Your task to perform on an android device: check the backup settings in the google photos Image 0: 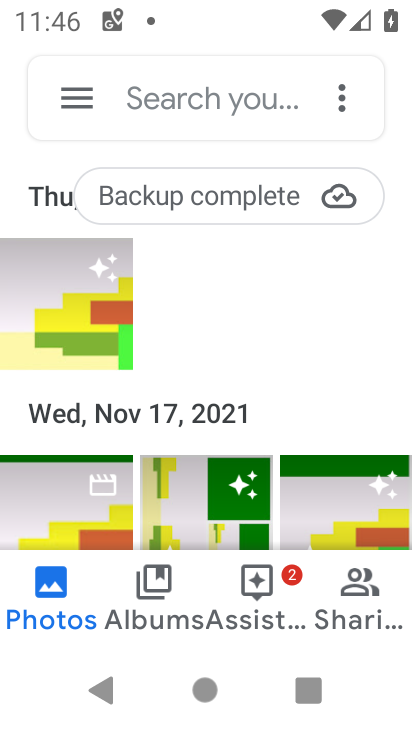
Step 0: click (297, 195)
Your task to perform on an android device: check the backup settings in the google photos Image 1: 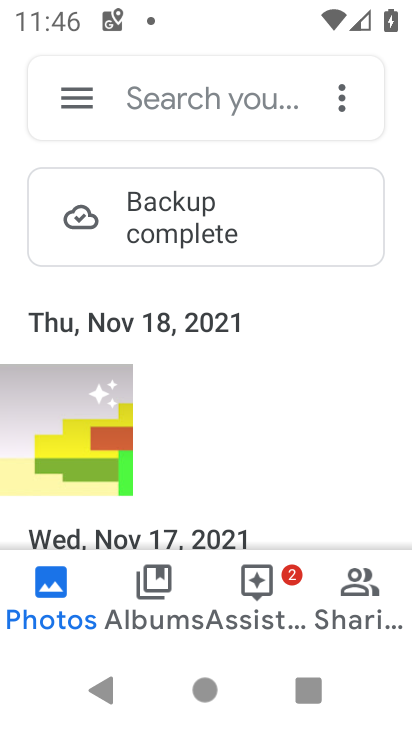
Step 1: click (205, 221)
Your task to perform on an android device: check the backup settings in the google photos Image 2: 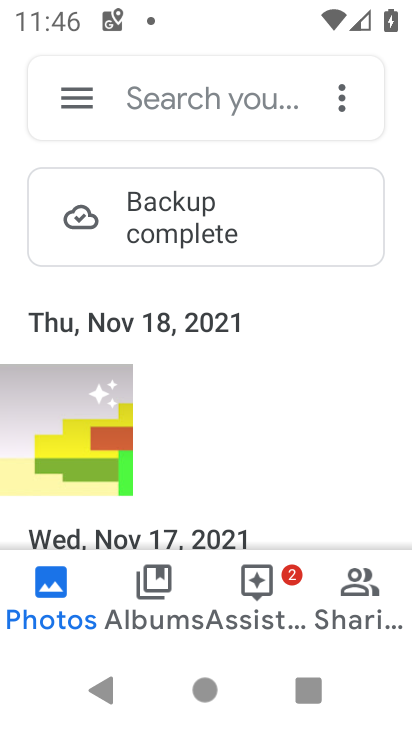
Step 2: click (205, 221)
Your task to perform on an android device: check the backup settings in the google photos Image 3: 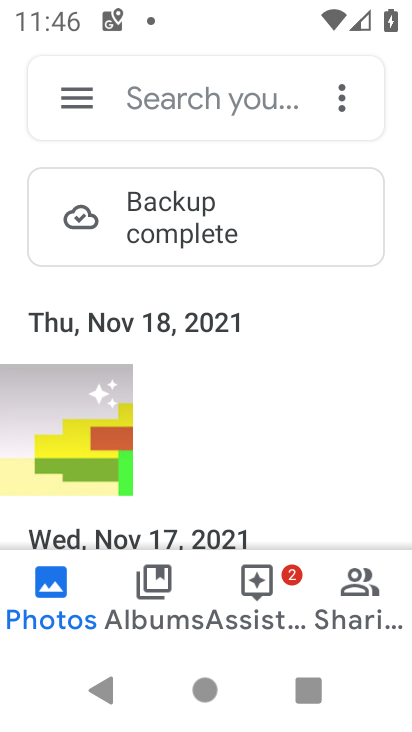
Step 3: click (205, 221)
Your task to perform on an android device: check the backup settings in the google photos Image 4: 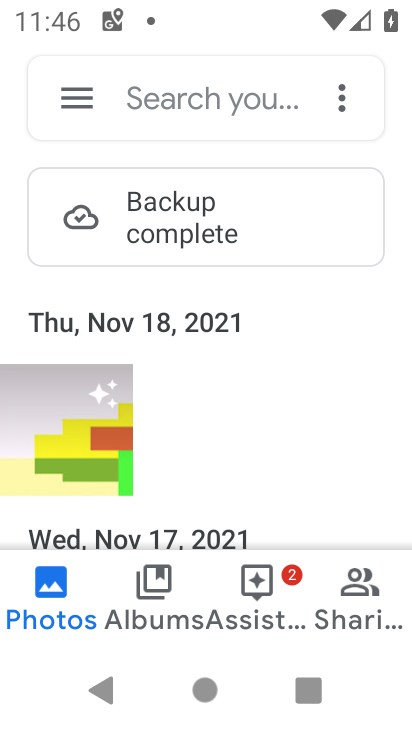
Step 4: task complete